Your task to perform on an android device: open a bookmark in the chrome app Image 0: 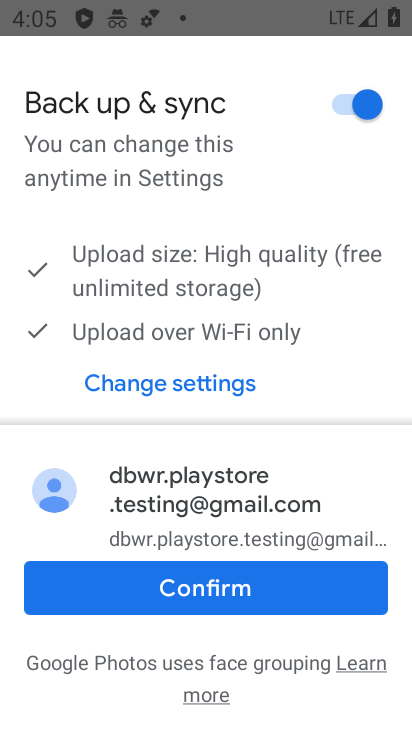
Step 0: press home button
Your task to perform on an android device: open a bookmark in the chrome app Image 1: 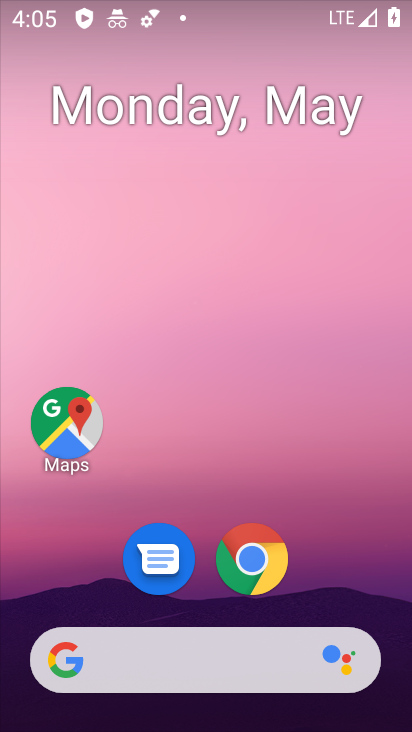
Step 1: drag from (307, 547) to (224, 60)
Your task to perform on an android device: open a bookmark in the chrome app Image 2: 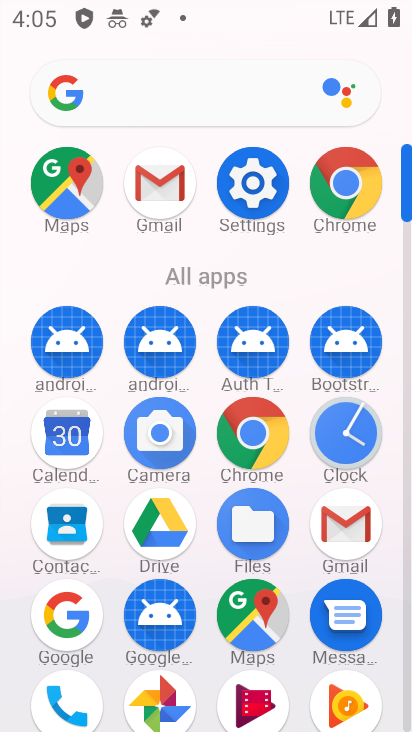
Step 2: drag from (7, 597) to (13, 281)
Your task to perform on an android device: open a bookmark in the chrome app Image 3: 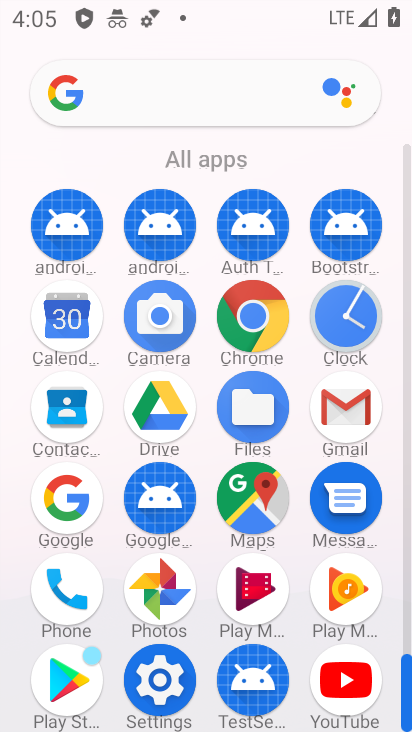
Step 3: click (252, 317)
Your task to perform on an android device: open a bookmark in the chrome app Image 4: 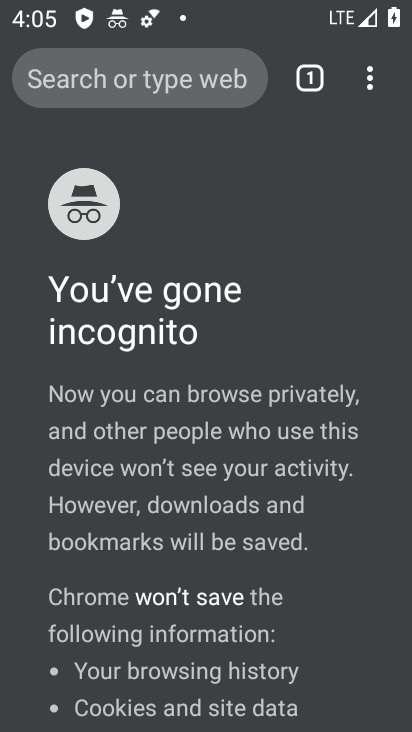
Step 4: task complete